Your task to perform on an android device: Open settings Image 0: 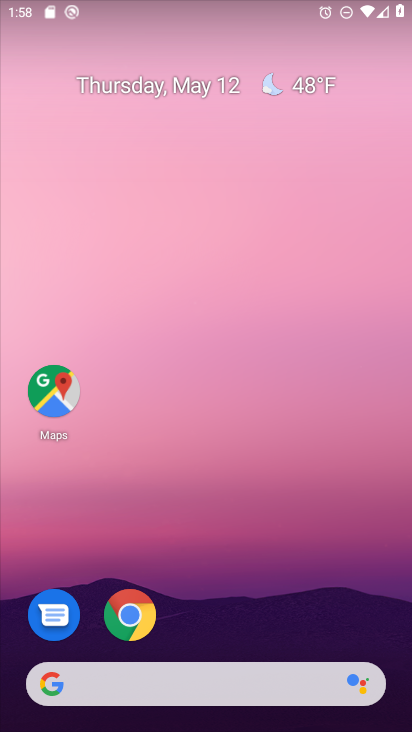
Step 0: drag from (239, 678) to (333, 10)
Your task to perform on an android device: Open settings Image 1: 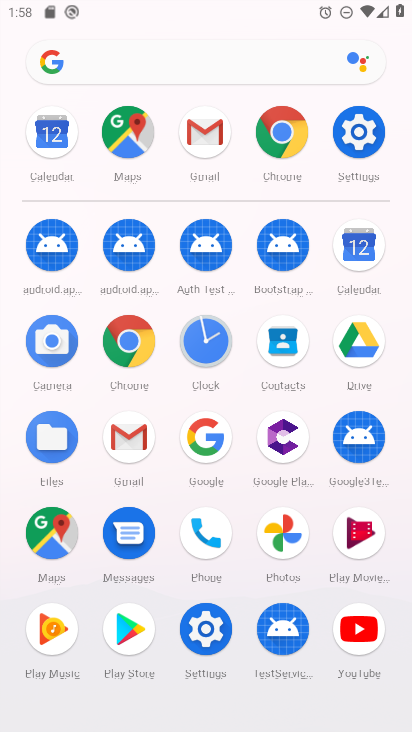
Step 1: click (358, 122)
Your task to perform on an android device: Open settings Image 2: 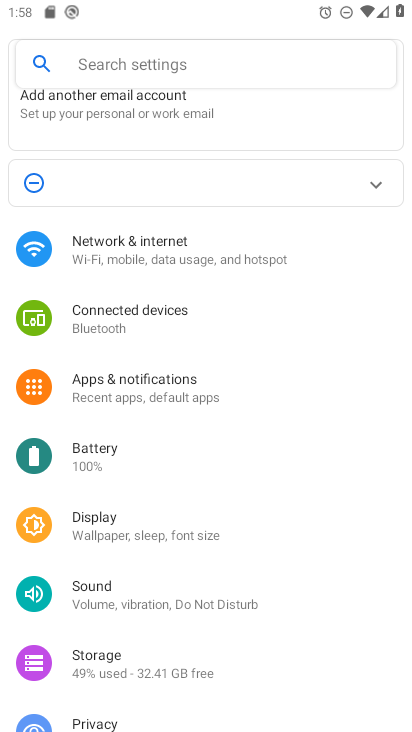
Step 2: task complete